Your task to perform on an android device: Go to location settings Image 0: 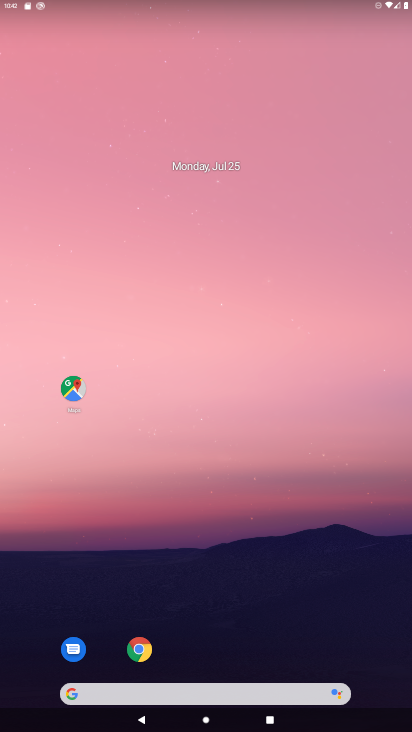
Step 0: drag from (389, 667) to (349, 135)
Your task to perform on an android device: Go to location settings Image 1: 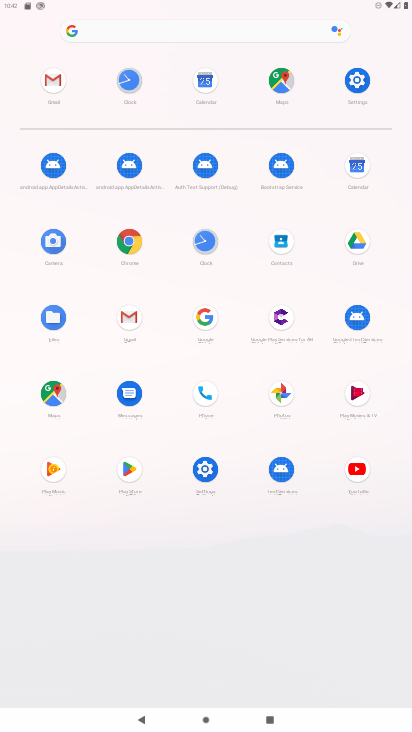
Step 1: click (205, 469)
Your task to perform on an android device: Go to location settings Image 2: 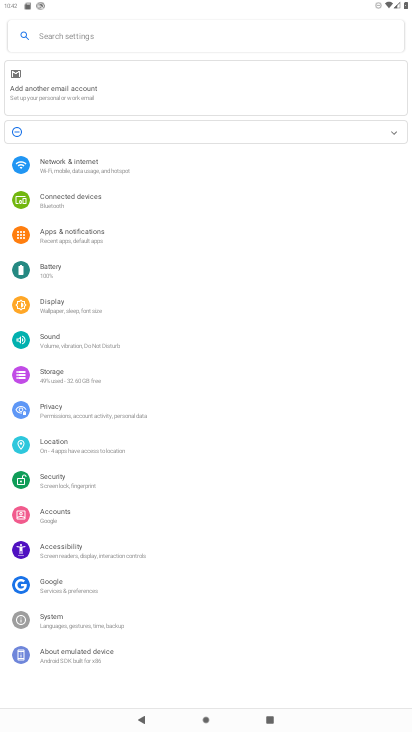
Step 2: click (51, 440)
Your task to perform on an android device: Go to location settings Image 3: 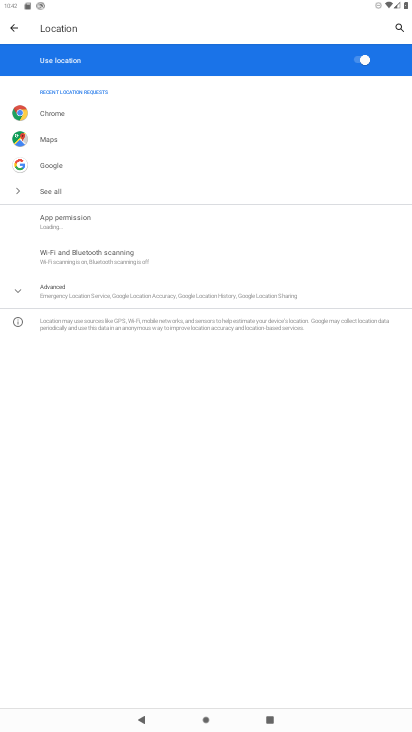
Step 3: click (15, 289)
Your task to perform on an android device: Go to location settings Image 4: 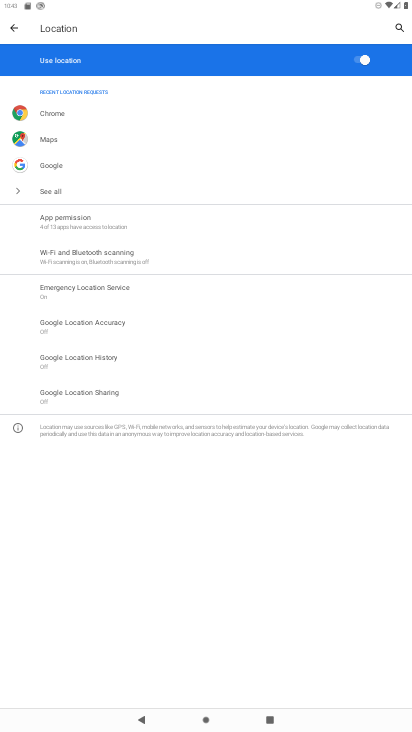
Step 4: task complete